Your task to perform on an android device: Open Google Maps and go to "Timeline" Image 0: 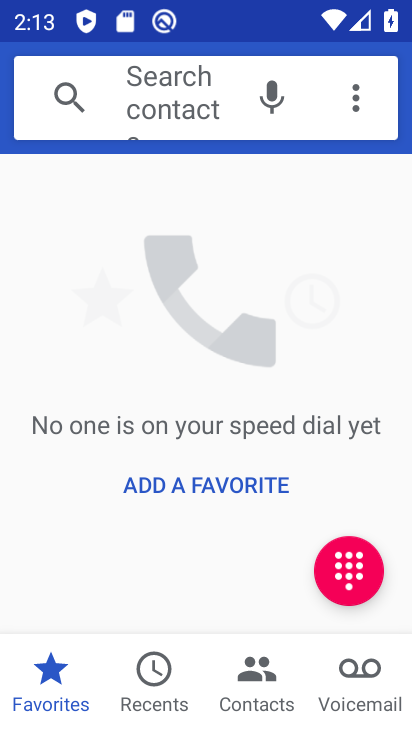
Step 0: press home button
Your task to perform on an android device: Open Google Maps and go to "Timeline" Image 1: 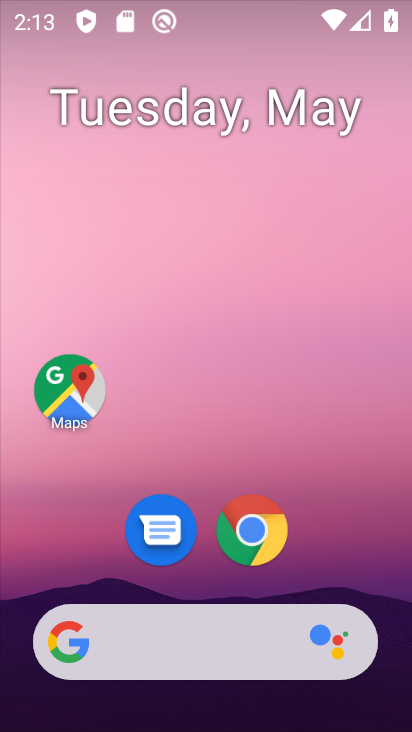
Step 1: click (49, 364)
Your task to perform on an android device: Open Google Maps and go to "Timeline" Image 2: 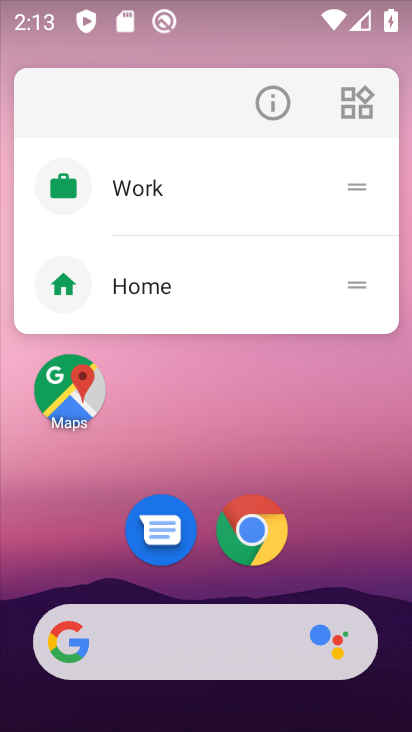
Step 2: click (82, 387)
Your task to perform on an android device: Open Google Maps and go to "Timeline" Image 3: 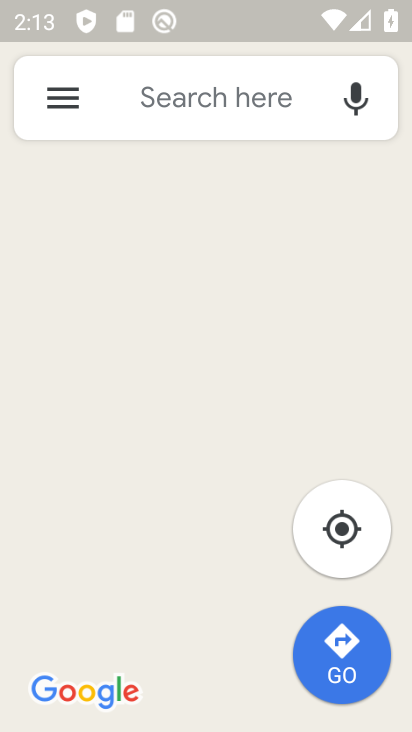
Step 3: click (59, 89)
Your task to perform on an android device: Open Google Maps and go to "Timeline" Image 4: 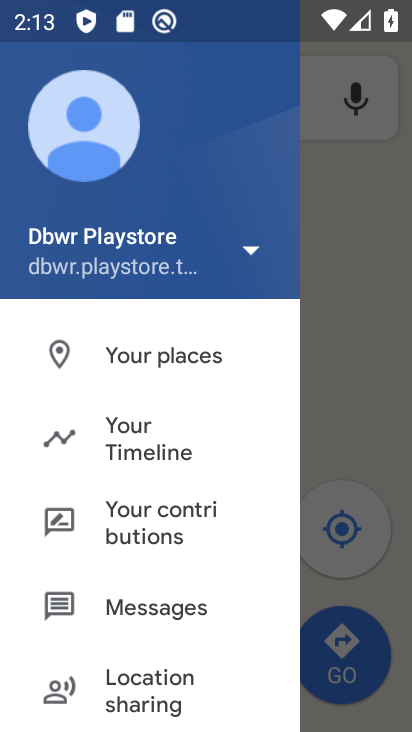
Step 4: click (152, 423)
Your task to perform on an android device: Open Google Maps and go to "Timeline" Image 5: 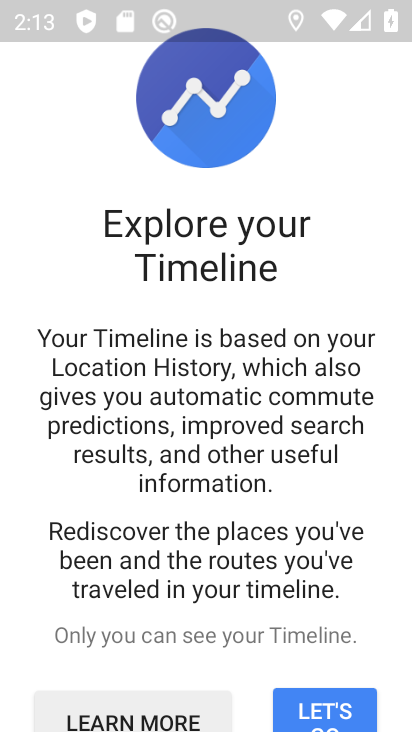
Step 5: click (333, 719)
Your task to perform on an android device: Open Google Maps and go to "Timeline" Image 6: 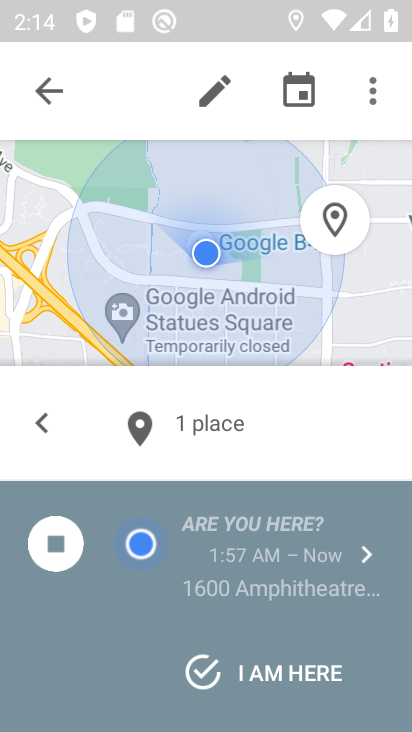
Step 6: task complete